Your task to perform on an android device: Go to Google maps Image 0: 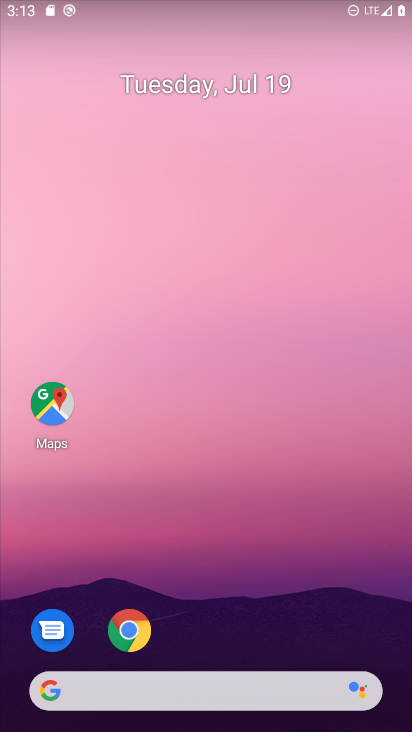
Step 0: click (53, 402)
Your task to perform on an android device: Go to Google maps Image 1: 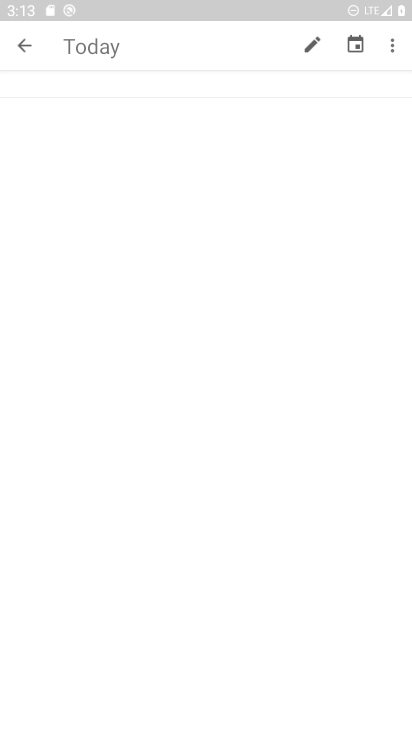
Step 1: task complete